Your task to perform on an android device: Show the shopping cart on bestbuy. Add "jbl flip 4" to the cart on bestbuy Image 0: 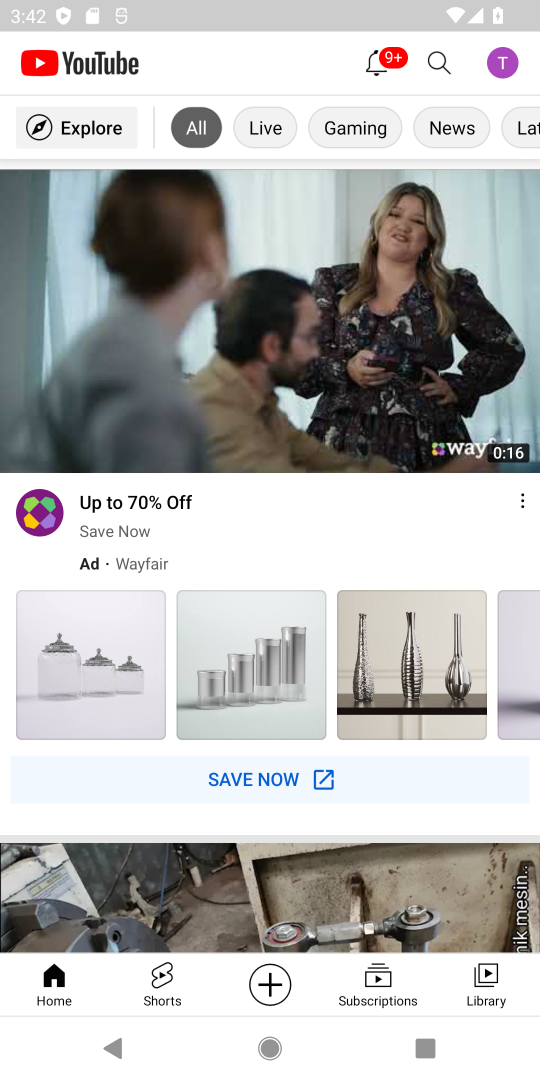
Step 0: press home button
Your task to perform on an android device: Show the shopping cart on bestbuy. Add "jbl flip 4" to the cart on bestbuy Image 1: 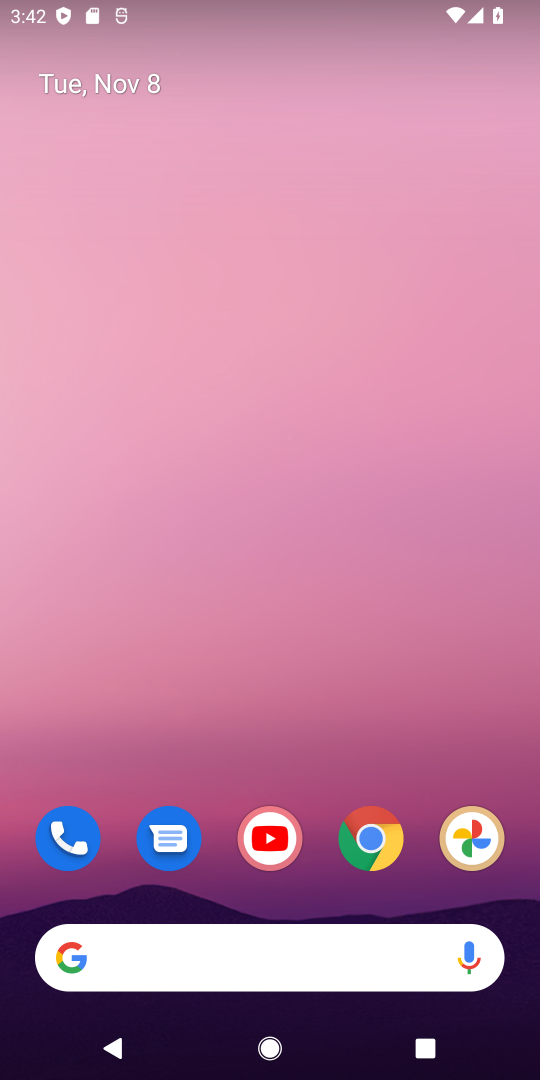
Step 1: drag from (361, 1021) to (414, 193)
Your task to perform on an android device: Show the shopping cart on bestbuy. Add "jbl flip 4" to the cart on bestbuy Image 2: 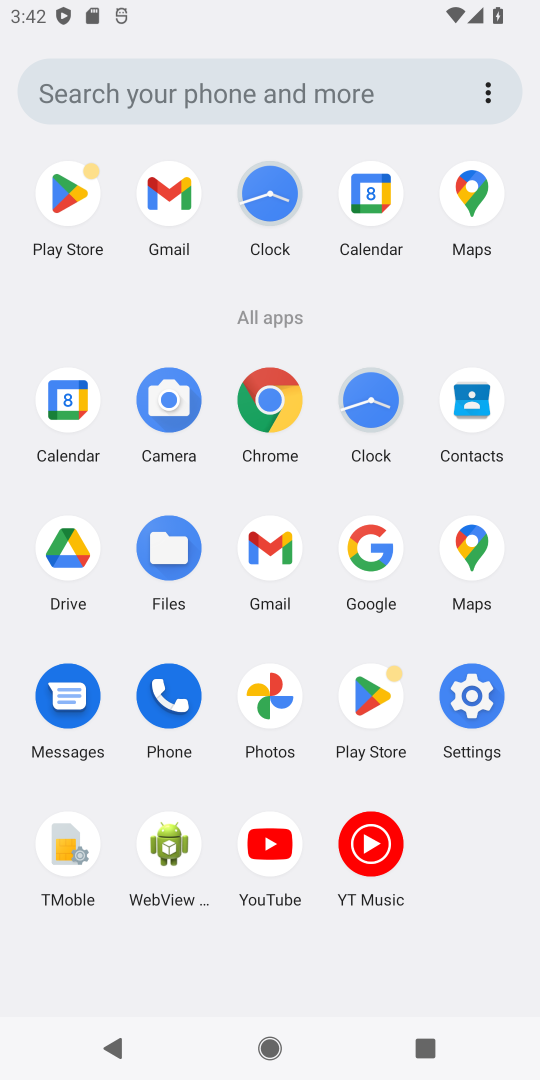
Step 2: click (267, 392)
Your task to perform on an android device: Show the shopping cart on bestbuy. Add "jbl flip 4" to the cart on bestbuy Image 3: 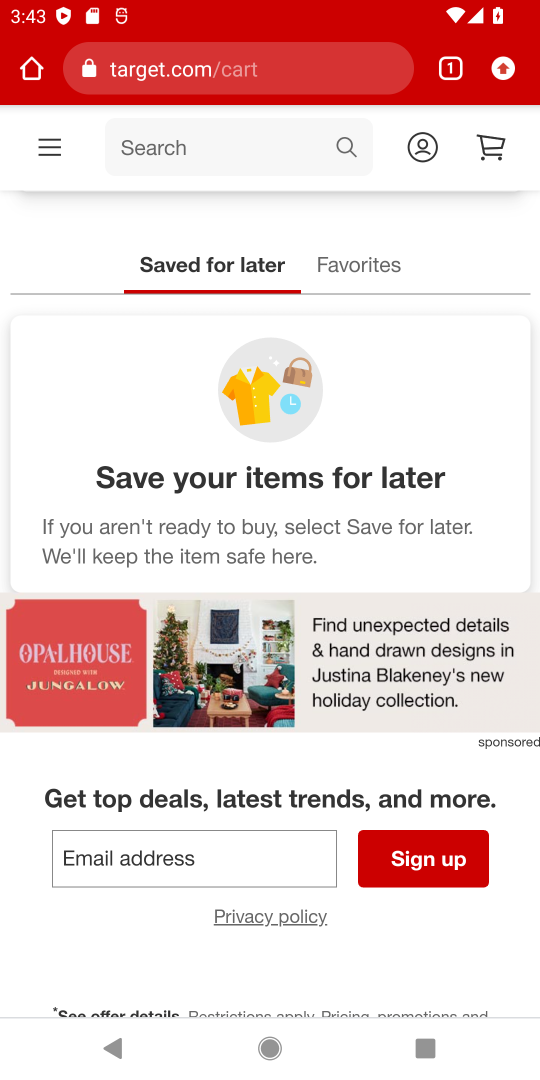
Step 3: click (213, 149)
Your task to perform on an android device: Show the shopping cart on bestbuy. Add "jbl flip 4" to the cart on bestbuy Image 4: 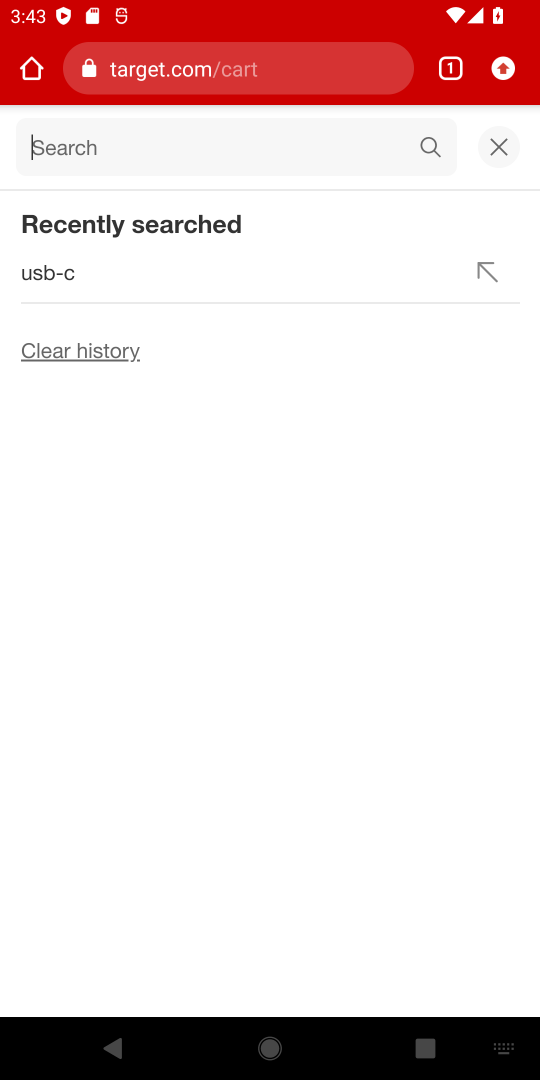
Step 4: type " bestbuy"
Your task to perform on an android device: Show the shopping cart on bestbuy. Add "jbl flip 4" to the cart on bestbuy Image 5: 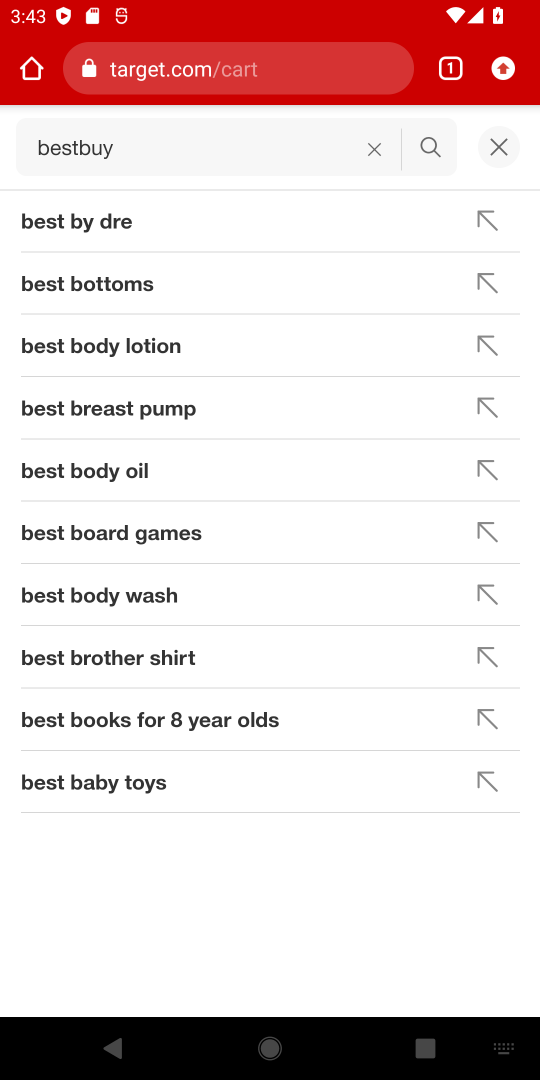
Step 5: click (255, 70)
Your task to perform on an android device: Show the shopping cart on bestbuy. Add "jbl flip 4" to the cart on bestbuy Image 6: 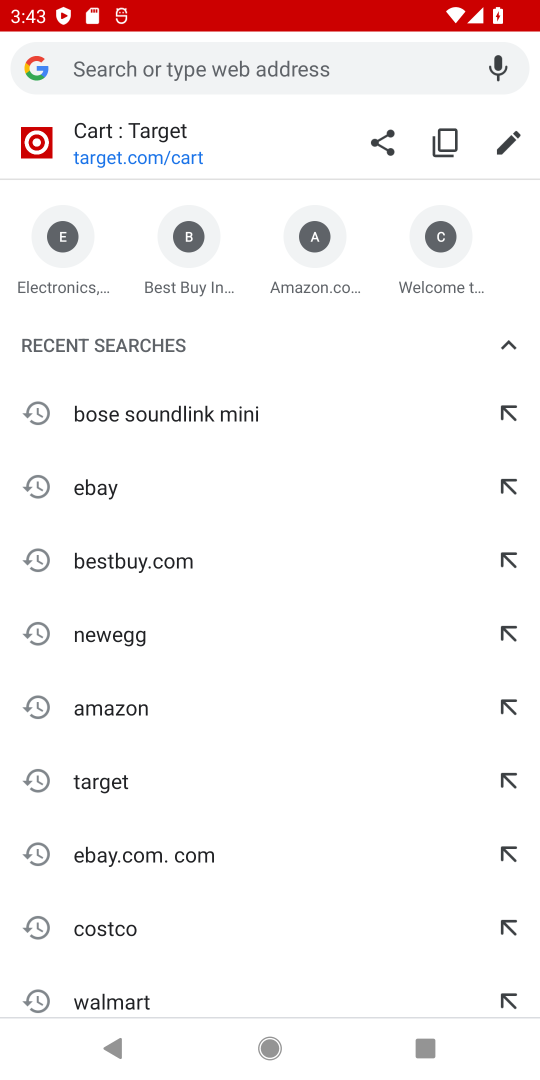
Step 6: type " bestbuy"
Your task to perform on an android device: Show the shopping cart on bestbuy. Add "jbl flip 4" to the cart on bestbuy Image 7: 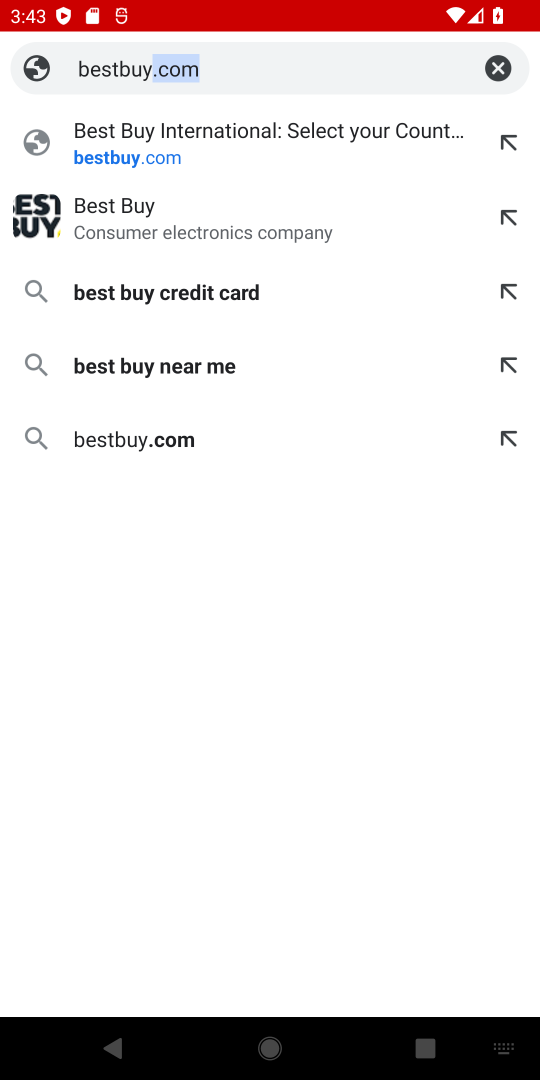
Step 7: click (126, 155)
Your task to perform on an android device: Show the shopping cart on bestbuy. Add "jbl flip 4" to the cart on bestbuy Image 8: 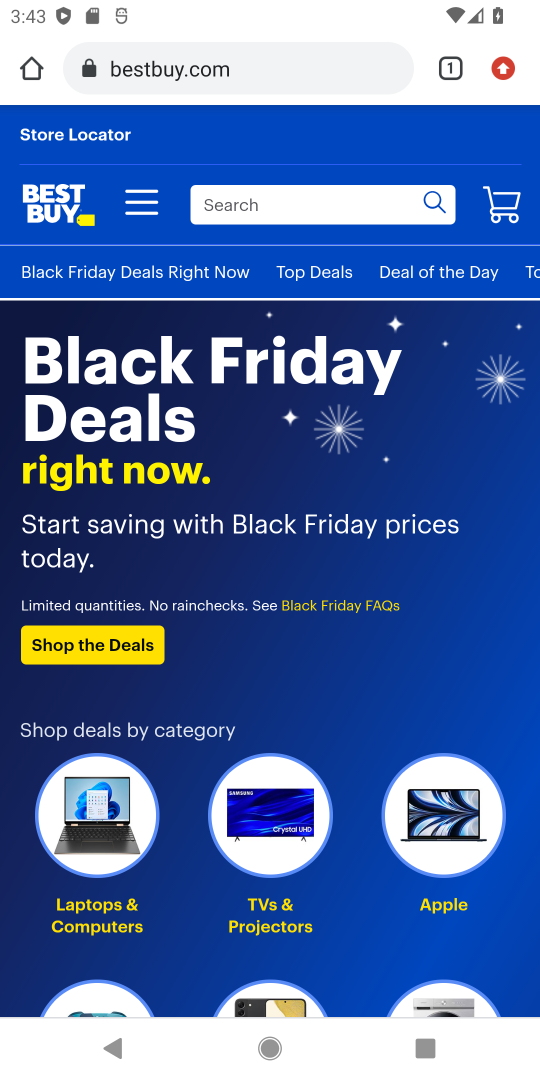
Step 8: drag from (366, 957) to (380, 492)
Your task to perform on an android device: Show the shopping cart on bestbuy. Add "jbl flip 4" to the cart on bestbuy Image 9: 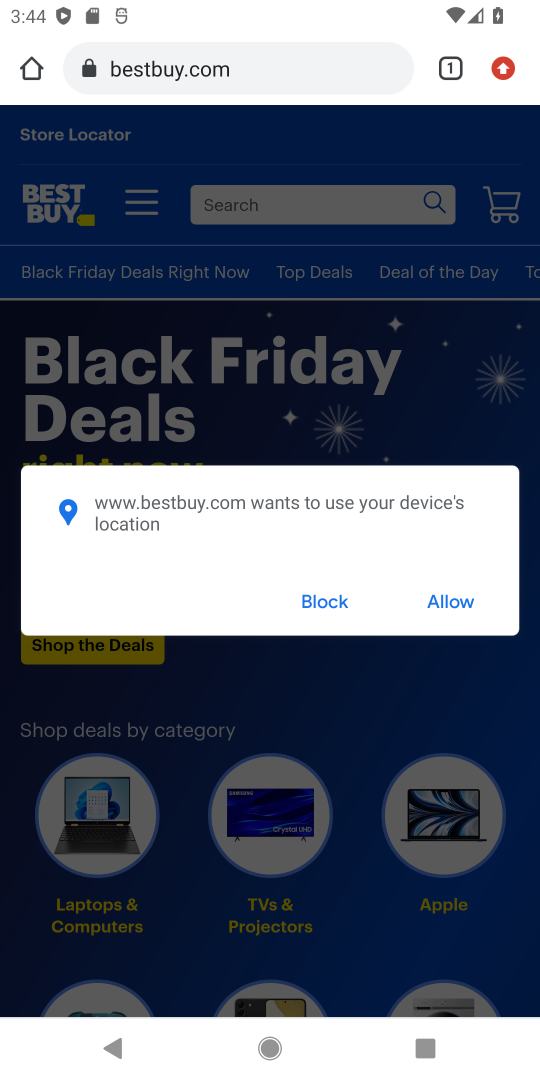
Step 9: click (455, 596)
Your task to perform on an android device: Show the shopping cart on bestbuy. Add "jbl flip 4" to the cart on bestbuy Image 10: 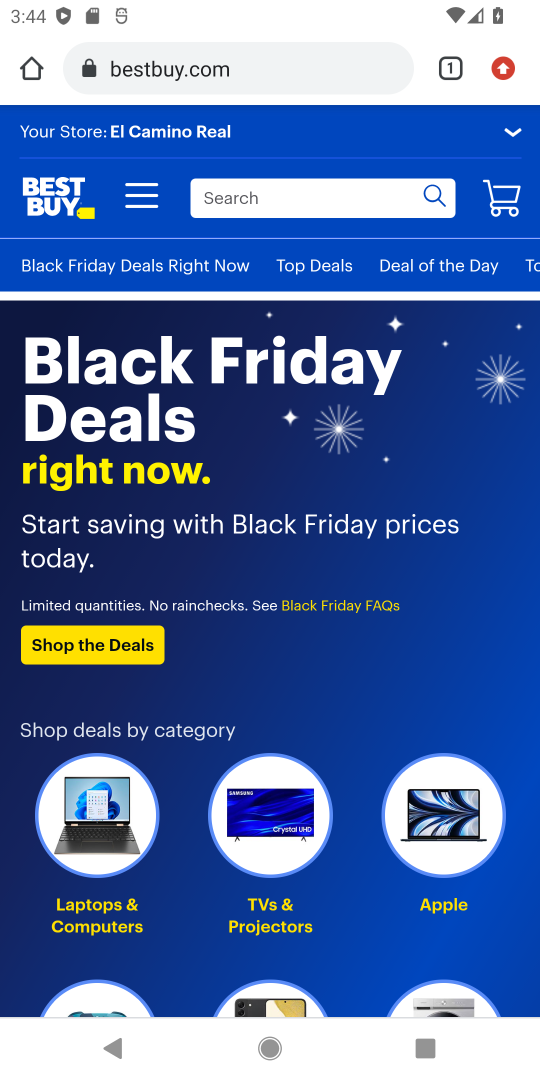
Step 10: click (275, 187)
Your task to perform on an android device: Show the shopping cart on bestbuy. Add "jbl flip 4" to the cart on bestbuy Image 11: 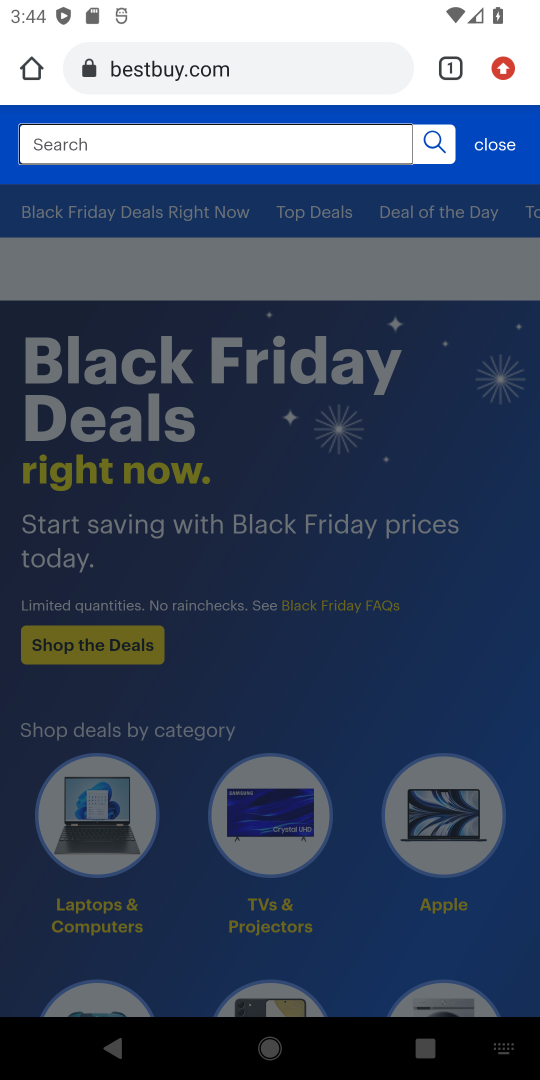
Step 11: type "jbl flip 4"
Your task to perform on an android device: Show the shopping cart on bestbuy. Add "jbl flip 4" to the cart on bestbuy Image 12: 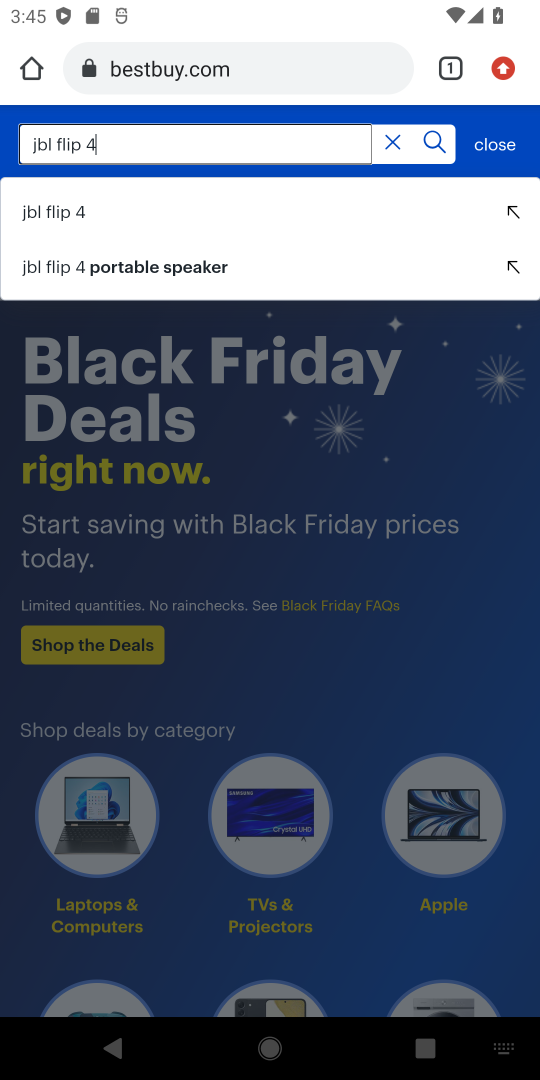
Step 12: click (54, 211)
Your task to perform on an android device: Show the shopping cart on bestbuy. Add "jbl flip 4" to the cart on bestbuy Image 13: 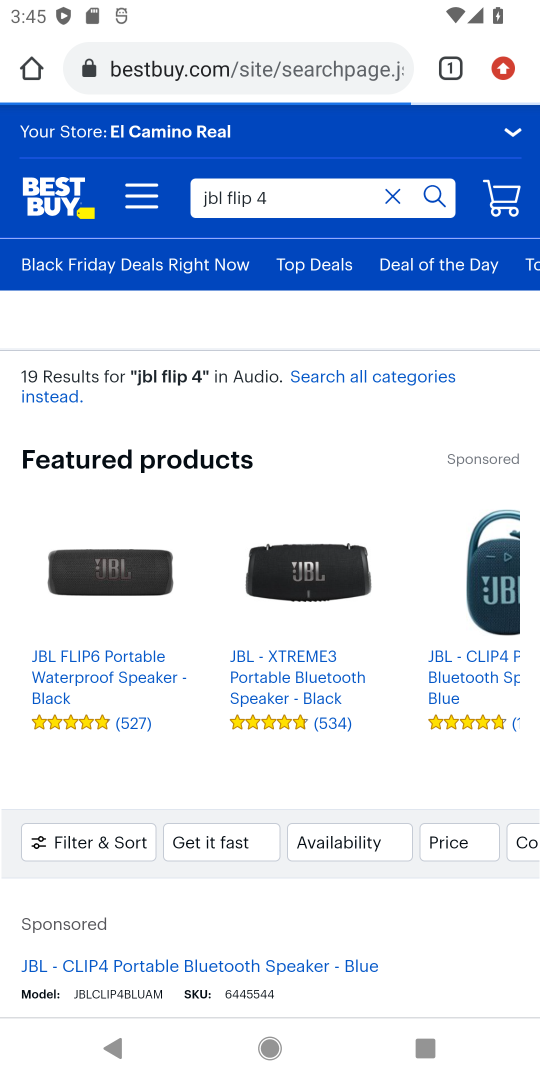
Step 13: drag from (384, 913) to (307, 302)
Your task to perform on an android device: Show the shopping cart on bestbuy. Add "jbl flip 4" to the cart on bestbuy Image 14: 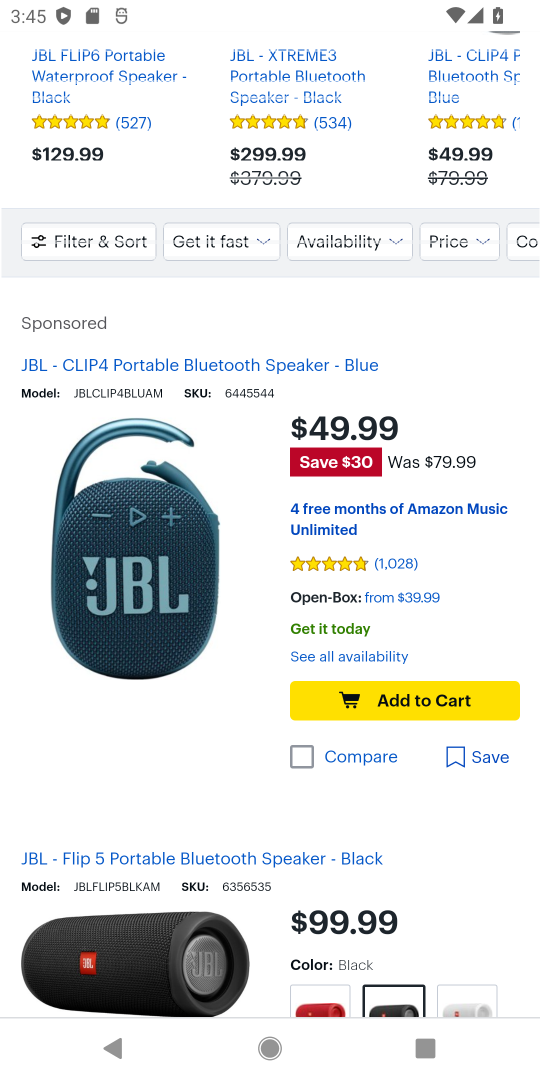
Step 14: click (414, 699)
Your task to perform on an android device: Show the shopping cart on bestbuy. Add "jbl flip 4" to the cart on bestbuy Image 15: 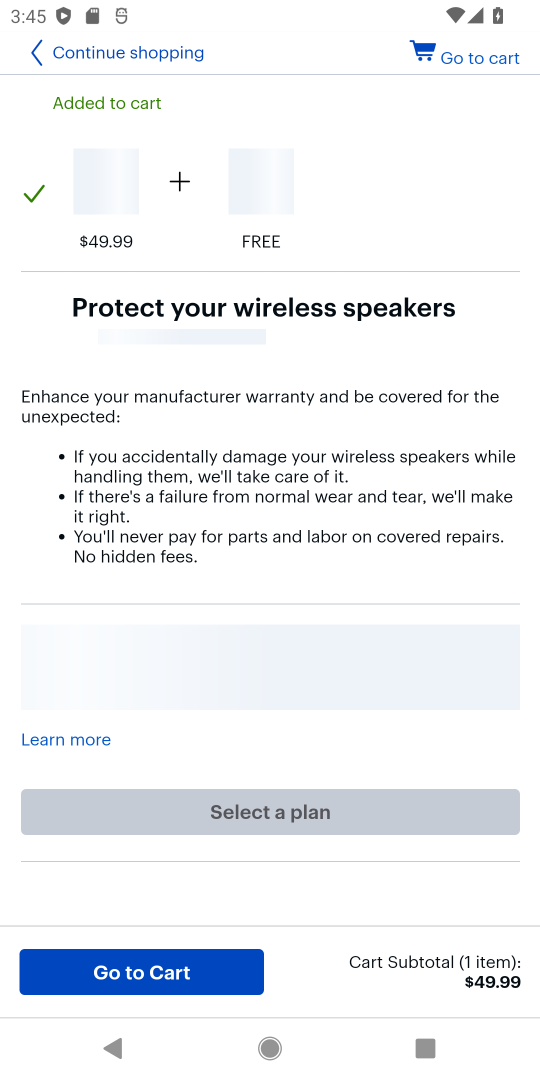
Step 15: task complete